Your task to perform on an android device: find photos in the google photos app Image 0: 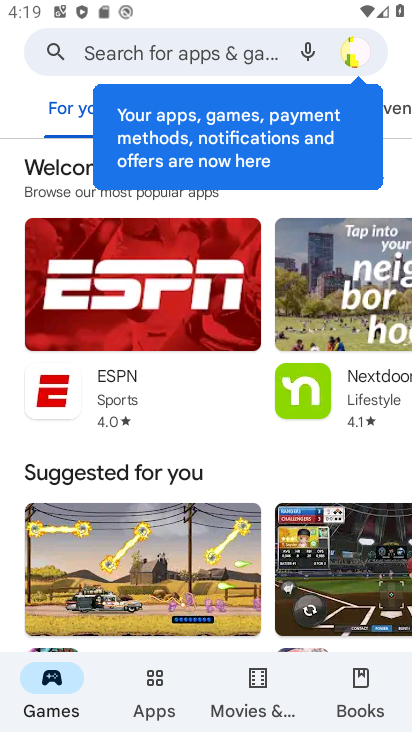
Step 0: press back button
Your task to perform on an android device: find photos in the google photos app Image 1: 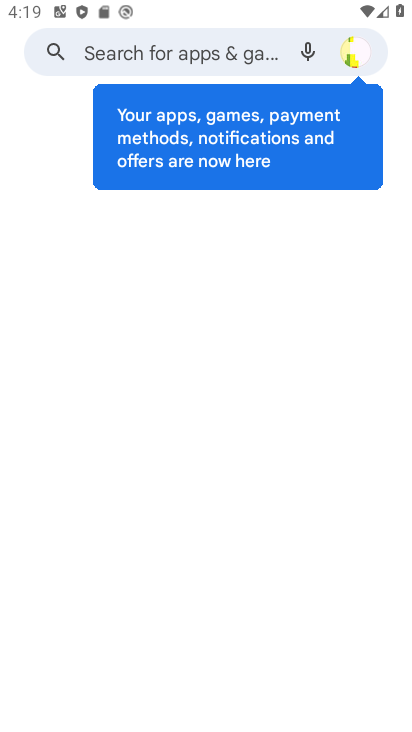
Step 1: press back button
Your task to perform on an android device: find photos in the google photos app Image 2: 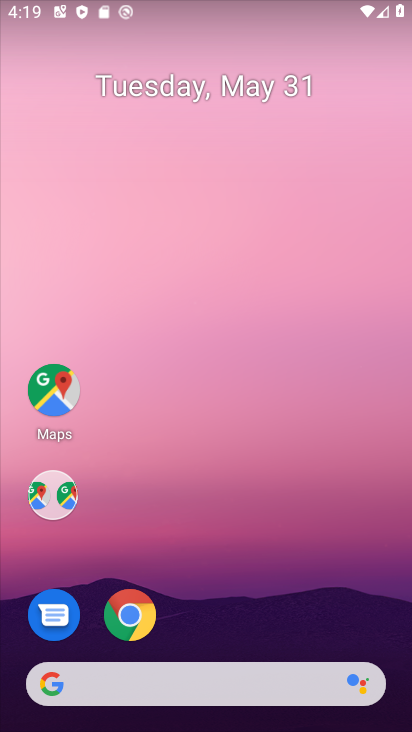
Step 2: drag from (240, 628) to (91, 43)
Your task to perform on an android device: find photos in the google photos app Image 3: 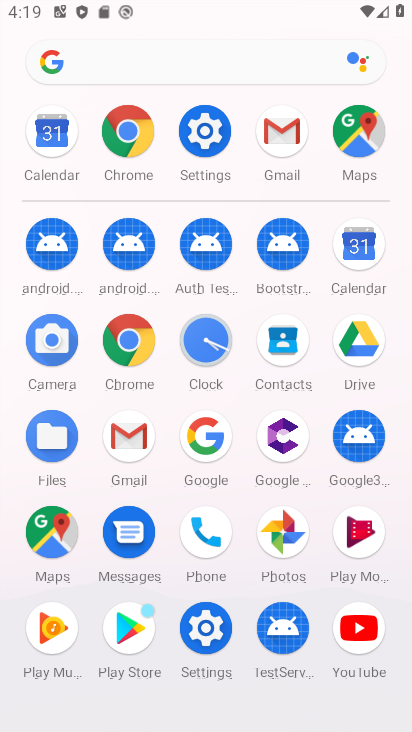
Step 3: click (275, 529)
Your task to perform on an android device: find photos in the google photos app Image 4: 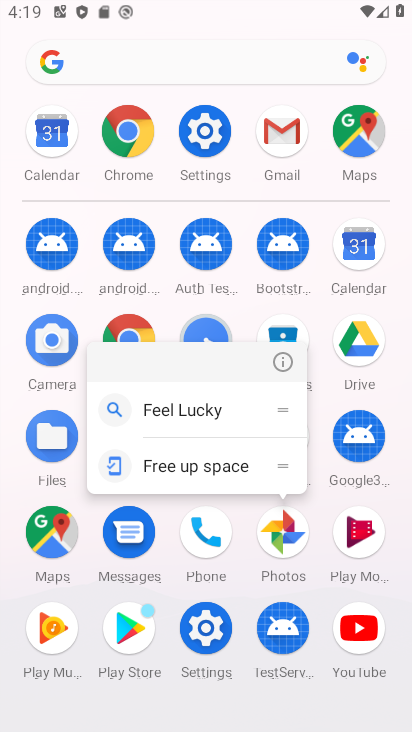
Step 4: click (284, 536)
Your task to perform on an android device: find photos in the google photos app Image 5: 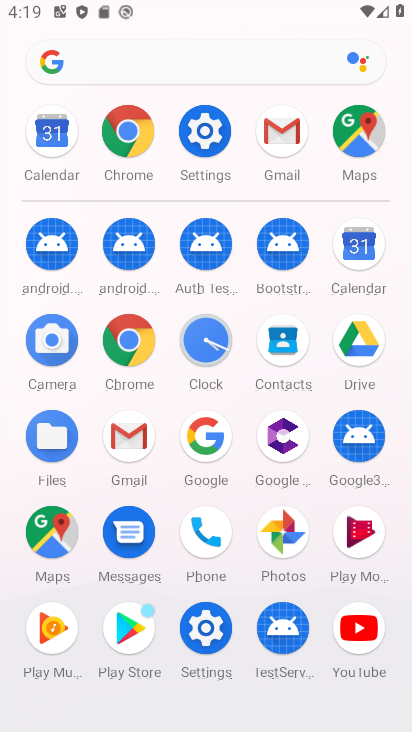
Step 5: click (284, 536)
Your task to perform on an android device: find photos in the google photos app Image 6: 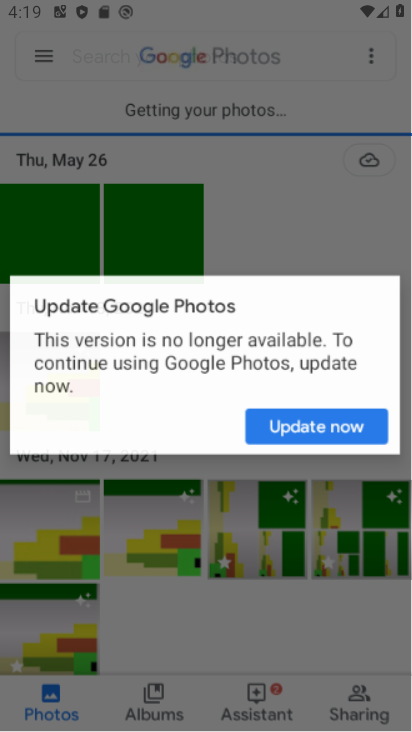
Step 6: click (284, 538)
Your task to perform on an android device: find photos in the google photos app Image 7: 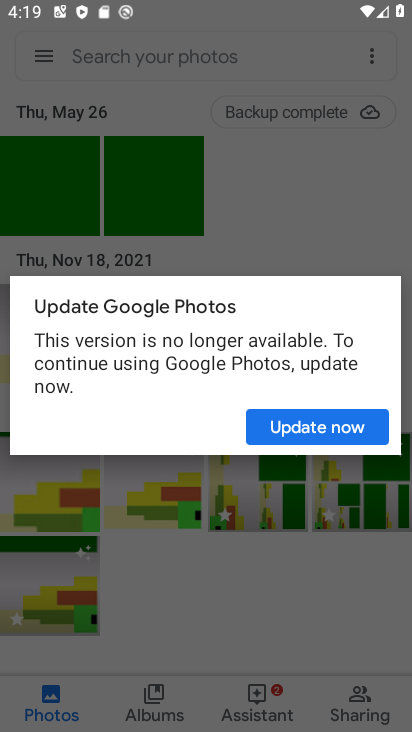
Step 7: click (307, 427)
Your task to perform on an android device: find photos in the google photos app Image 8: 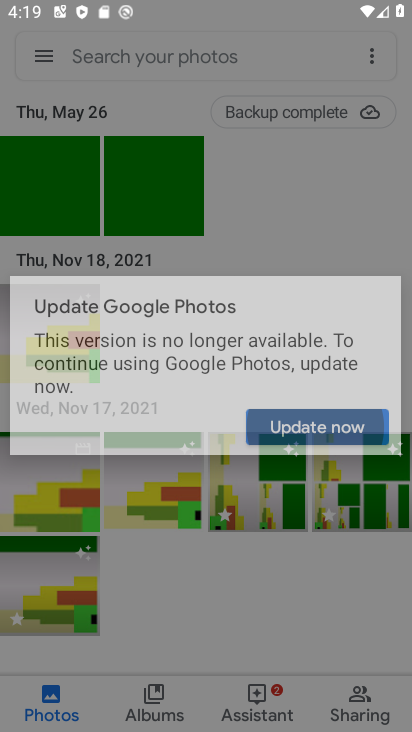
Step 8: click (315, 424)
Your task to perform on an android device: find photos in the google photos app Image 9: 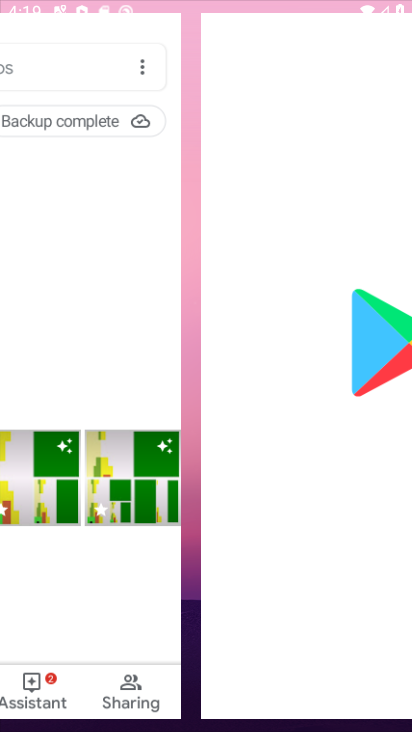
Step 9: click (321, 423)
Your task to perform on an android device: find photos in the google photos app Image 10: 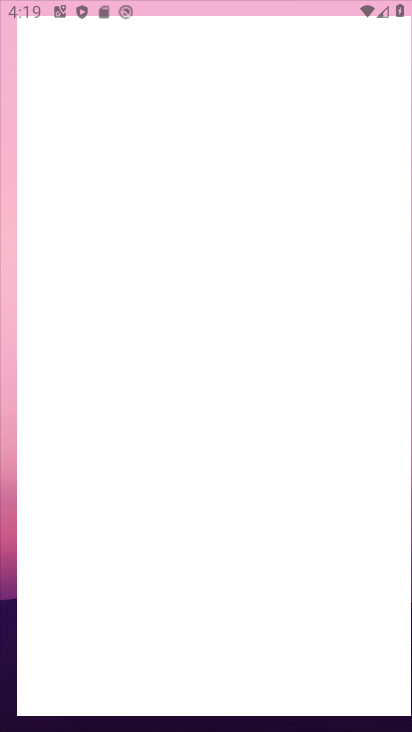
Step 10: click (321, 423)
Your task to perform on an android device: find photos in the google photos app Image 11: 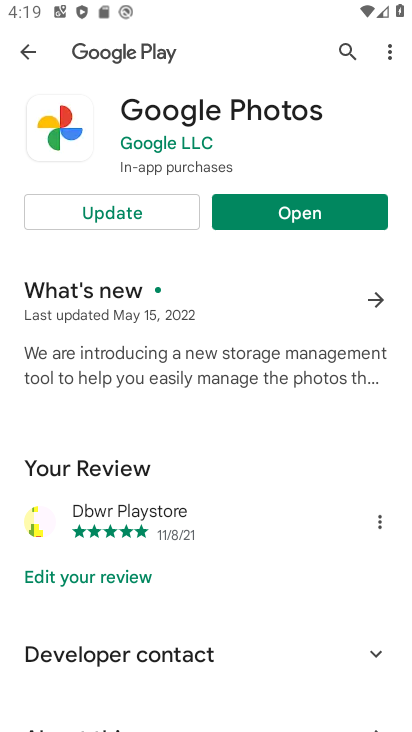
Step 11: click (152, 214)
Your task to perform on an android device: find photos in the google photos app Image 12: 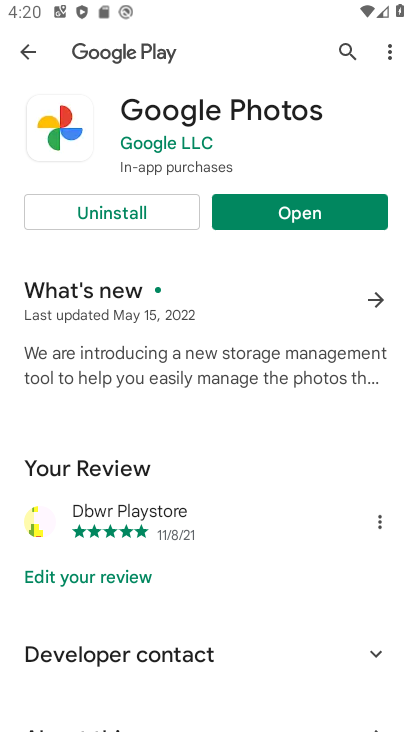
Step 12: click (327, 213)
Your task to perform on an android device: find photos in the google photos app Image 13: 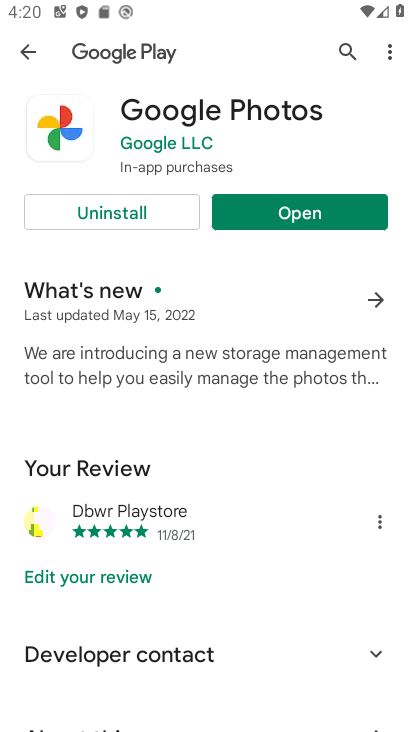
Step 13: click (353, 243)
Your task to perform on an android device: find photos in the google photos app Image 14: 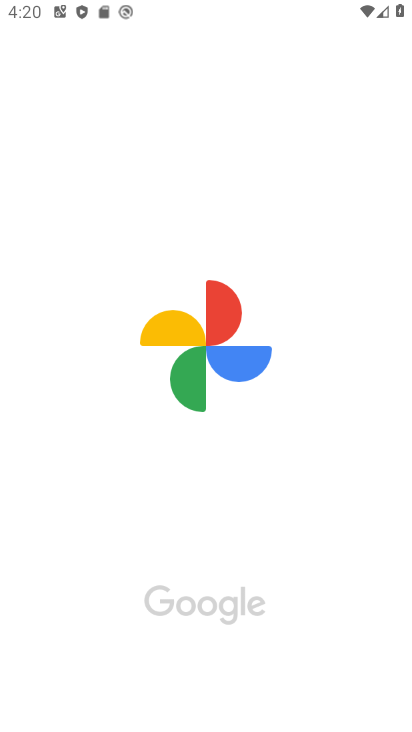
Step 14: click (310, 230)
Your task to perform on an android device: find photos in the google photos app Image 15: 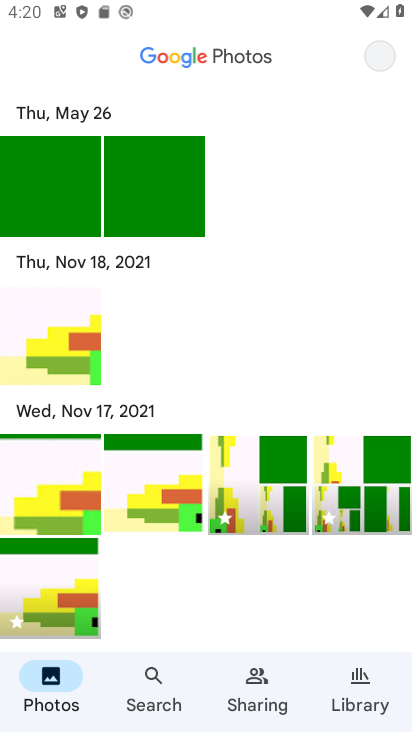
Step 15: task complete